Your task to perform on an android device: Show me popular videos on Youtube Image 0: 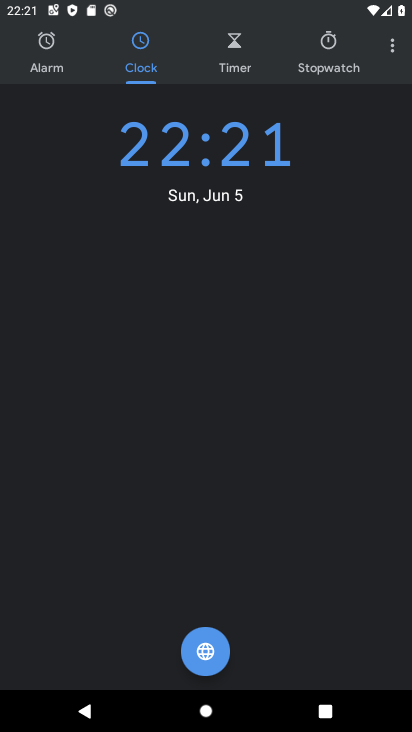
Step 0: press back button
Your task to perform on an android device: Show me popular videos on Youtube Image 1: 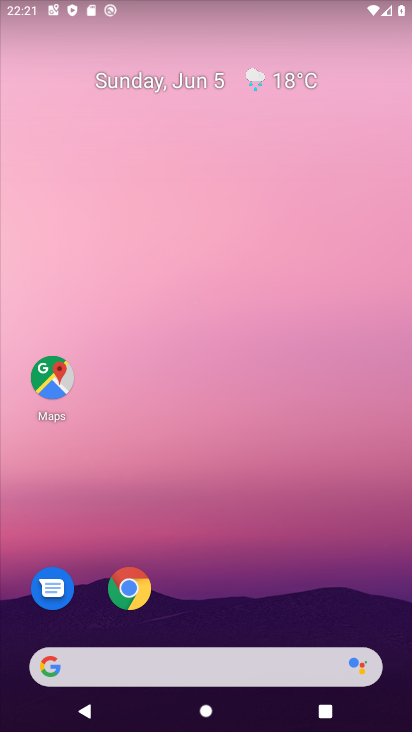
Step 1: drag from (355, 606) to (336, 195)
Your task to perform on an android device: Show me popular videos on Youtube Image 2: 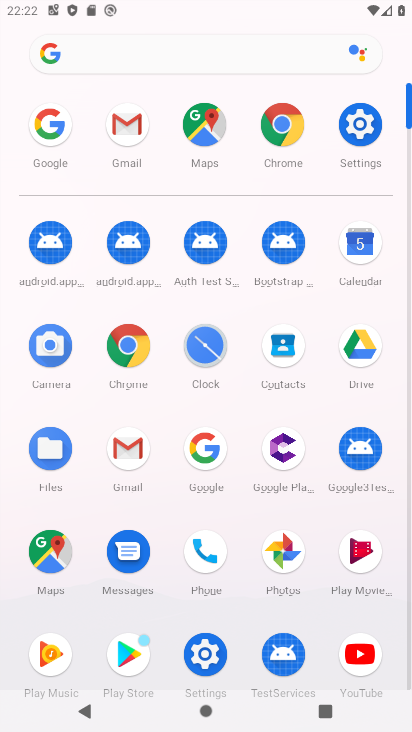
Step 2: click (364, 650)
Your task to perform on an android device: Show me popular videos on Youtube Image 3: 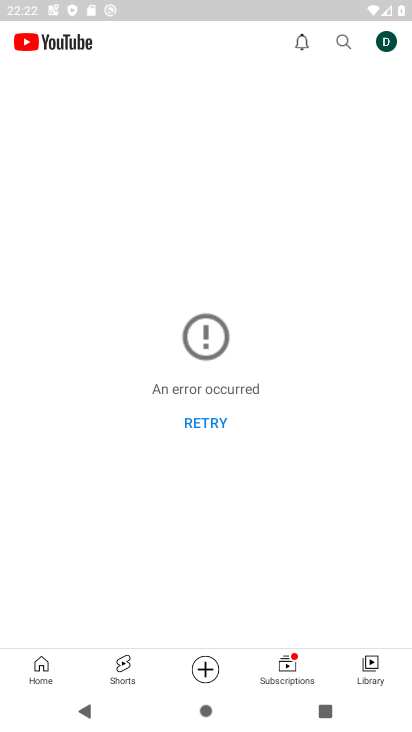
Step 3: click (37, 661)
Your task to perform on an android device: Show me popular videos on Youtube Image 4: 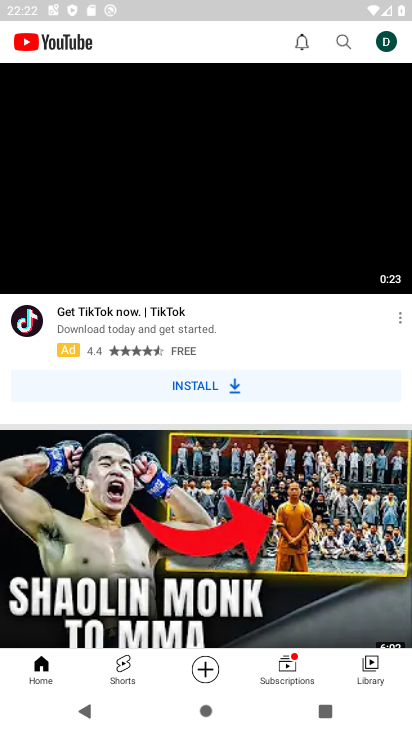
Step 4: task complete